Your task to perform on an android device: open app "Paramount+ | Peak Streaming" Image 0: 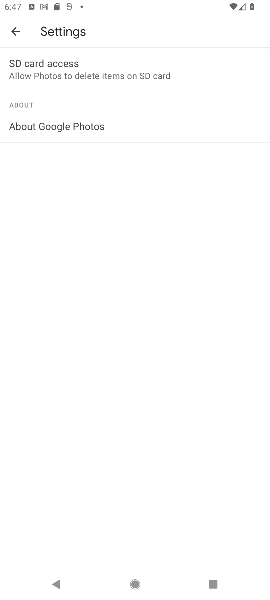
Step 0: press home button
Your task to perform on an android device: open app "Paramount+ | Peak Streaming" Image 1: 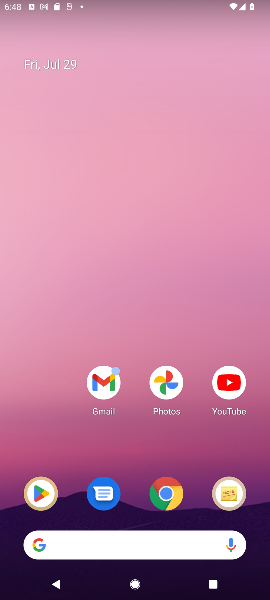
Step 1: drag from (157, 594) to (178, 46)
Your task to perform on an android device: open app "Paramount+ | Peak Streaming" Image 2: 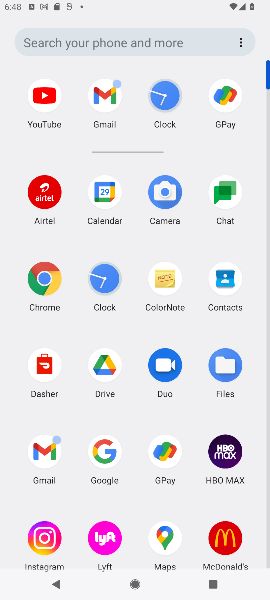
Step 2: drag from (142, 525) to (142, 251)
Your task to perform on an android device: open app "Paramount+ | Peak Streaming" Image 3: 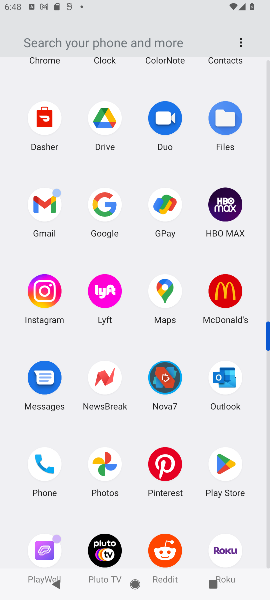
Step 3: drag from (136, 516) to (135, 217)
Your task to perform on an android device: open app "Paramount+ | Peak Streaming" Image 4: 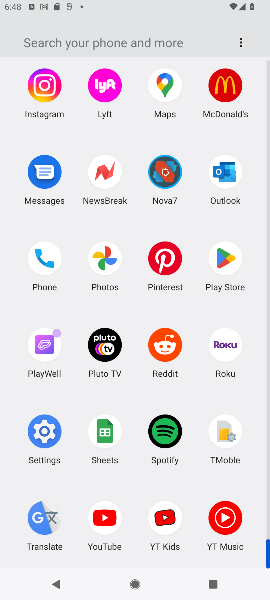
Step 4: click (228, 261)
Your task to perform on an android device: open app "Paramount+ | Peak Streaming" Image 5: 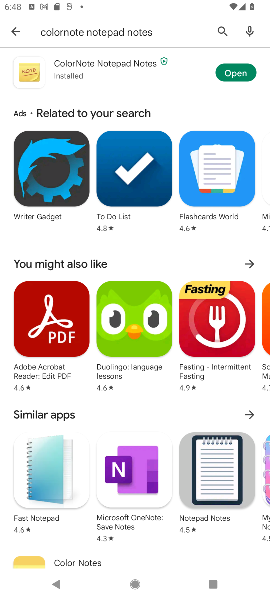
Step 5: click (219, 27)
Your task to perform on an android device: open app "Paramount+ | Peak Streaming" Image 6: 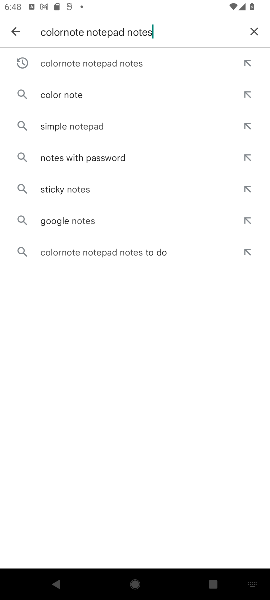
Step 6: click (252, 29)
Your task to perform on an android device: open app "Paramount+ | Peak Streaming" Image 7: 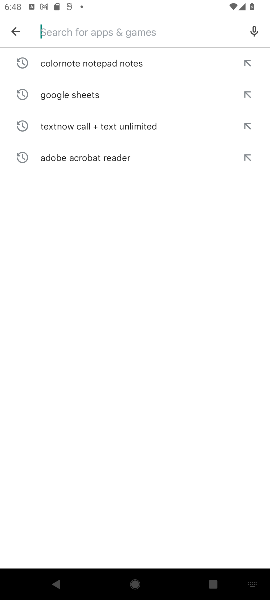
Step 7: type "Paramount+ | Peak Streaming"
Your task to perform on an android device: open app "Paramount+ | Peak Streaming" Image 8: 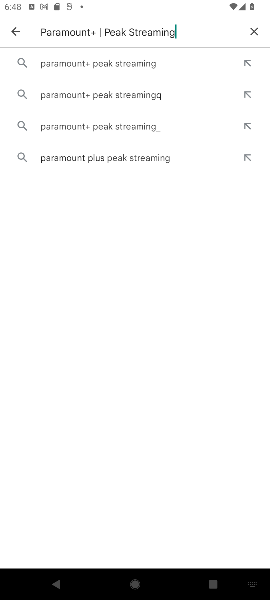
Step 8: click (90, 68)
Your task to perform on an android device: open app "Paramount+ | Peak Streaming" Image 9: 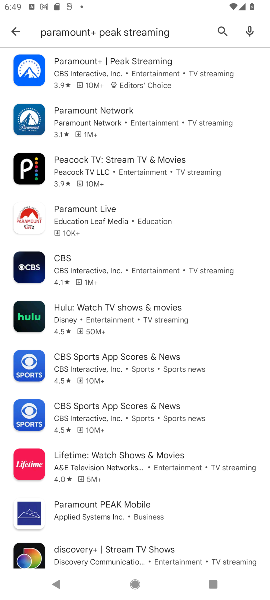
Step 9: click (89, 69)
Your task to perform on an android device: open app "Paramount+ | Peak Streaming" Image 10: 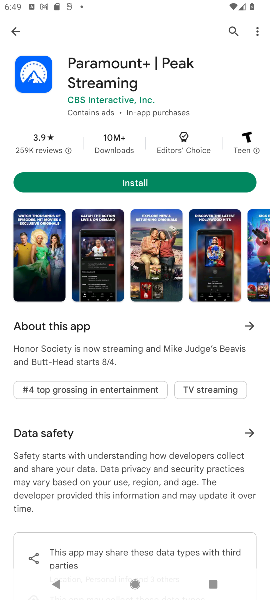
Step 10: task complete